Your task to perform on an android device: Open ESPN.com Image 0: 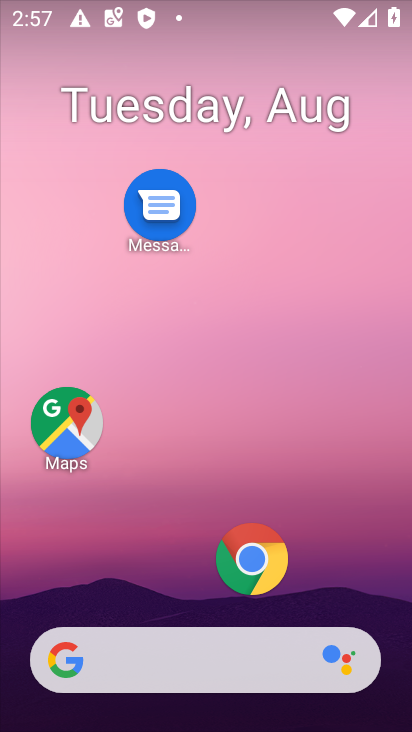
Step 0: click (251, 558)
Your task to perform on an android device: Open ESPN.com Image 1: 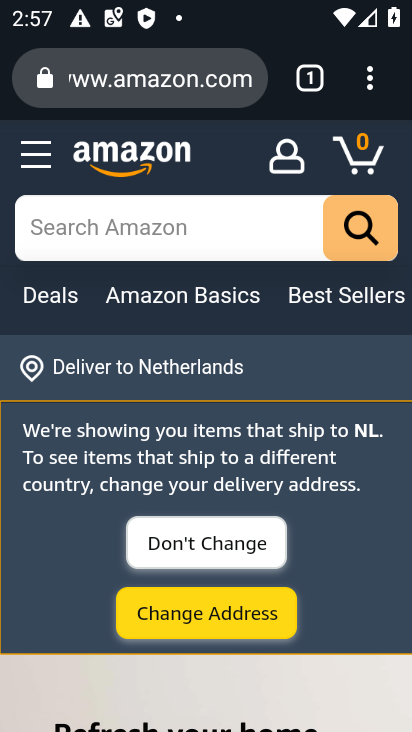
Step 1: click (377, 83)
Your task to perform on an android device: Open ESPN.com Image 2: 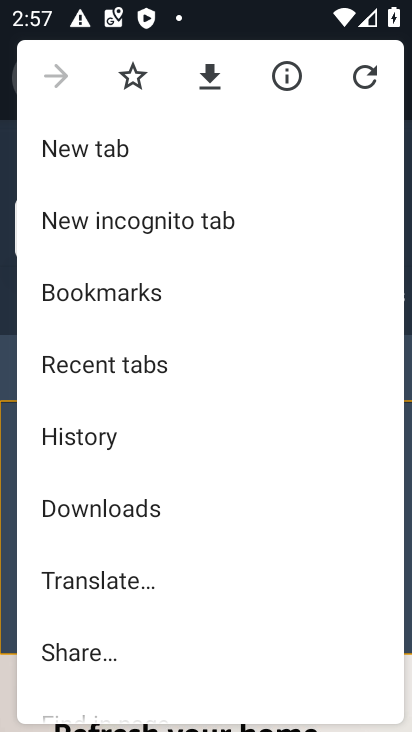
Step 2: click (88, 155)
Your task to perform on an android device: Open ESPN.com Image 3: 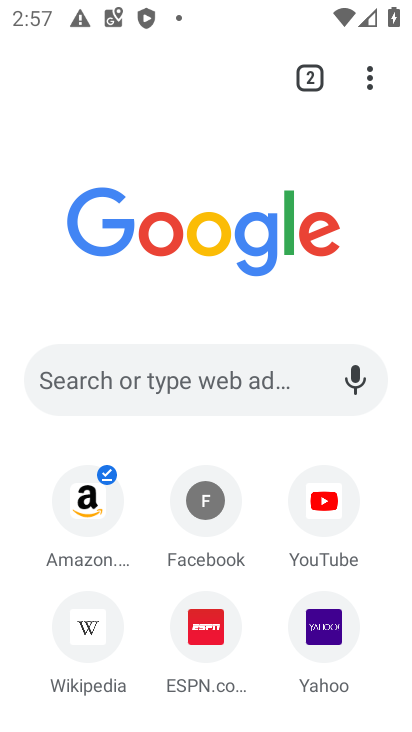
Step 3: click (215, 620)
Your task to perform on an android device: Open ESPN.com Image 4: 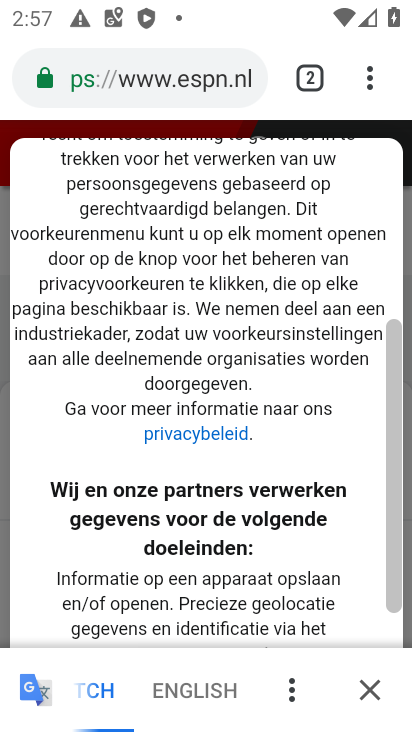
Step 4: task complete